Your task to perform on an android device: turn on improve location accuracy Image 0: 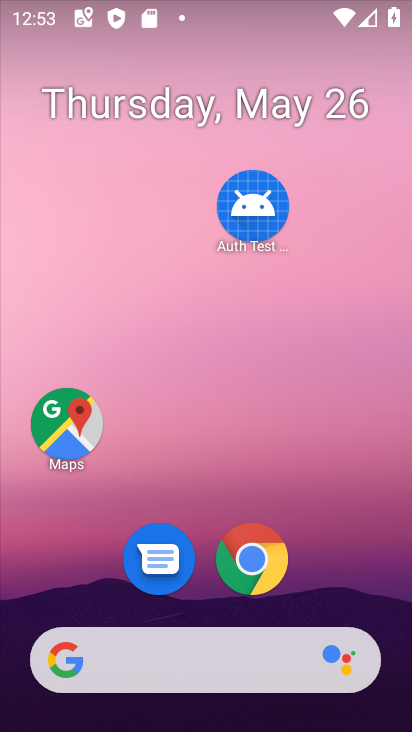
Step 0: drag from (386, 604) to (377, 58)
Your task to perform on an android device: turn on improve location accuracy Image 1: 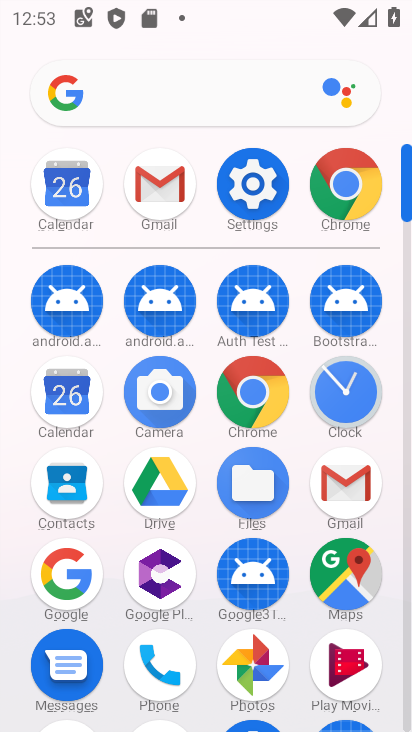
Step 1: click (270, 164)
Your task to perform on an android device: turn on improve location accuracy Image 2: 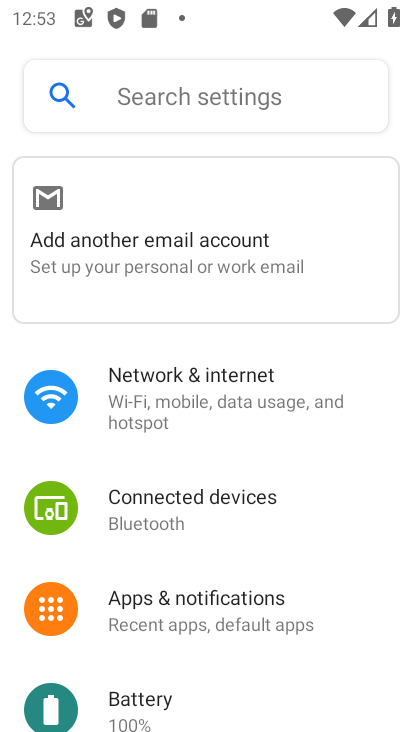
Step 2: drag from (244, 598) to (207, 246)
Your task to perform on an android device: turn on improve location accuracy Image 3: 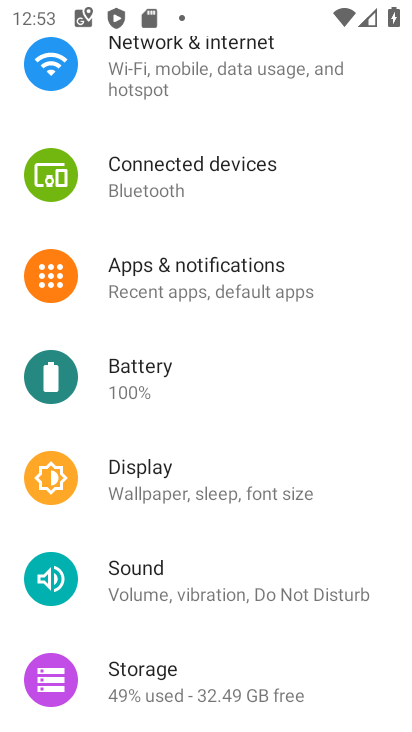
Step 3: drag from (234, 597) to (210, 284)
Your task to perform on an android device: turn on improve location accuracy Image 4: 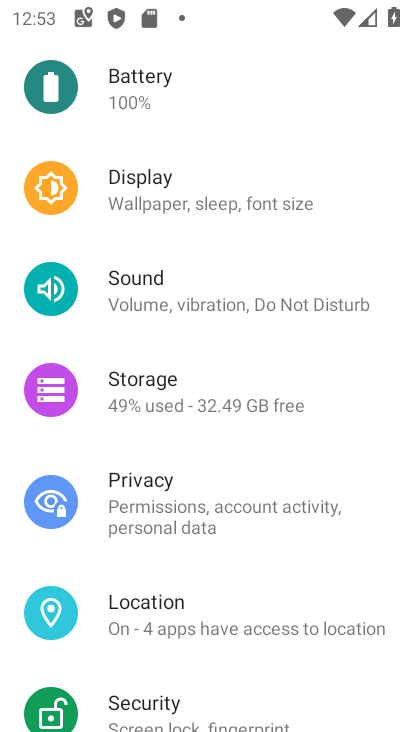
Step 4: click (181, 620)
Your task to perform on an android device: turn on improve location accuracy Image 5: 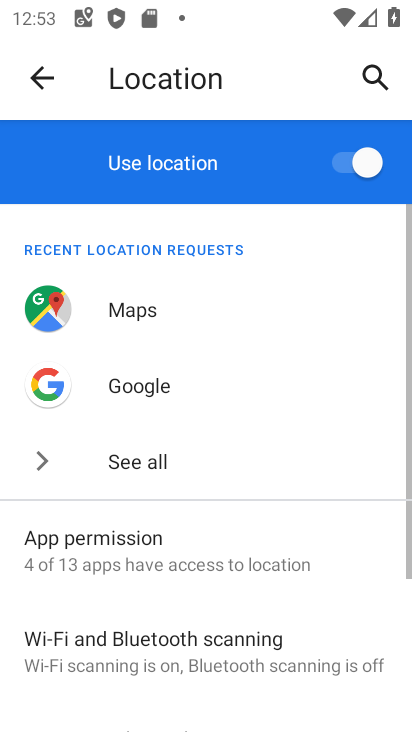
Step 5: drag from (191, 620) to (177, 257)
Your task to perform on an android device: turn on improve location accuracy Image 6: 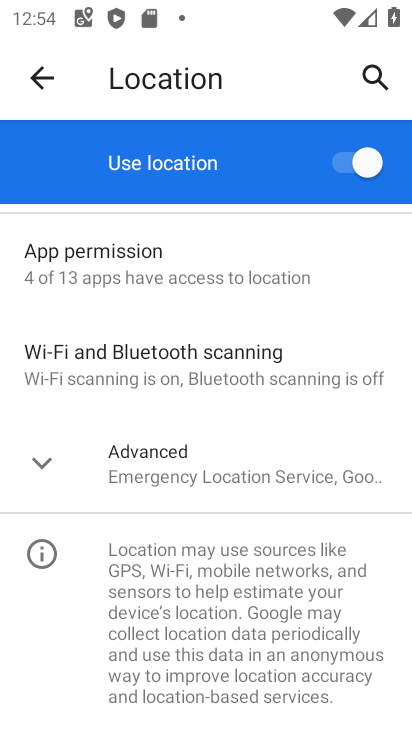
Step 6: click (180, 465)
Your task to perform on an android device: turn on improve location accuracy Image 7: 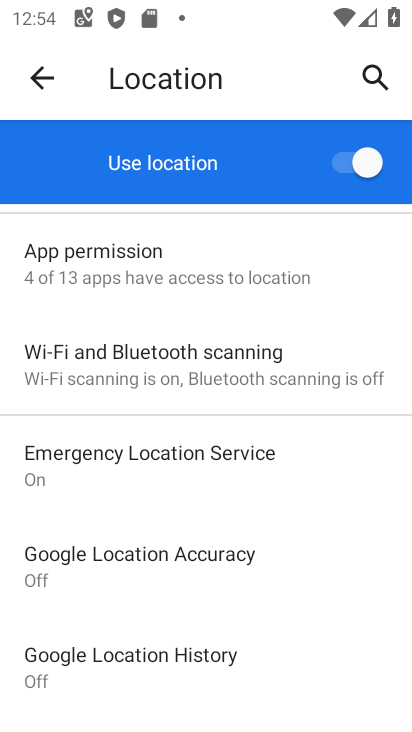
Step 7: click (196, 562)
Your task to perform on an android device: turn on improve location accuracy Image 8: 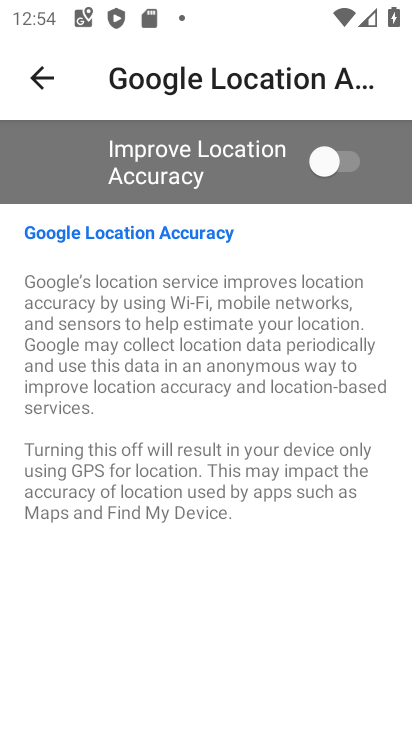
Step 8: click (346, 167)
Your task to perform on an android device: turn on improve location accuracy Image 9: 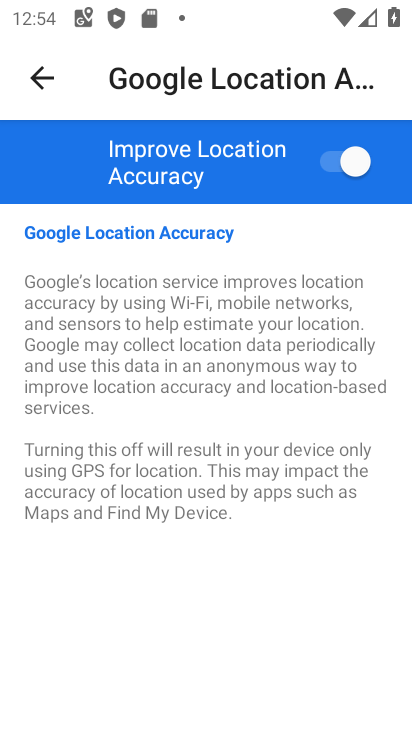
Step 9: task complete